Your task to perform on an android device: Open eBay Image 0: 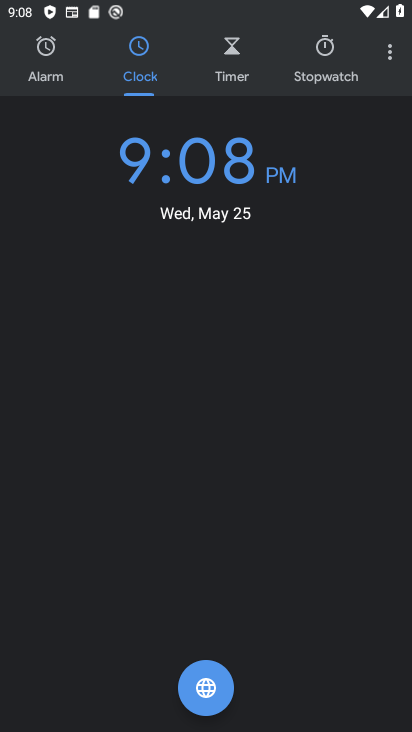
Step 0: press home button
Your task to perform on an android device: Open eBay Image 1: 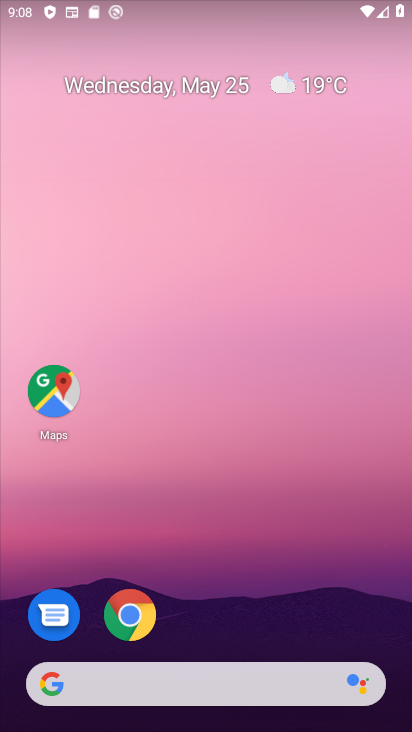
Step 1: drag from (269, 706) to (299, 122)
Your task to perform on an android device: Open eBay Image 2: 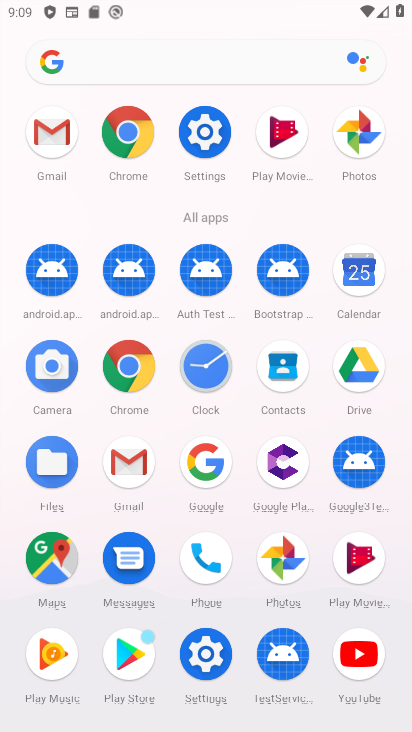
Step 2: click (136, 139)
Your task to perform on an android device: Open eBay Image 3: 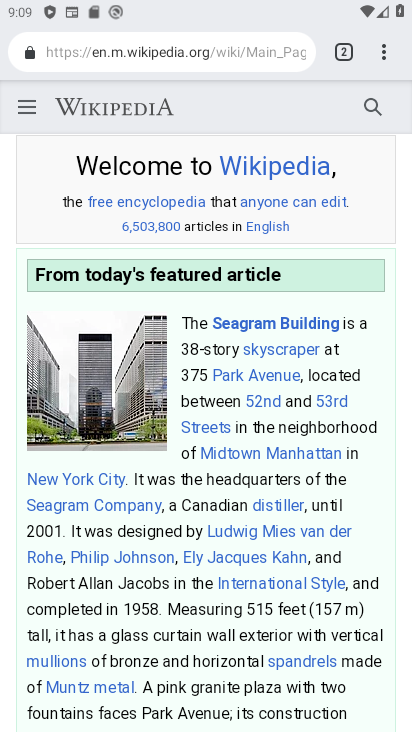
Step 3: click (172, 56)
Your task to perform on an android device: Open eBay Image 4: 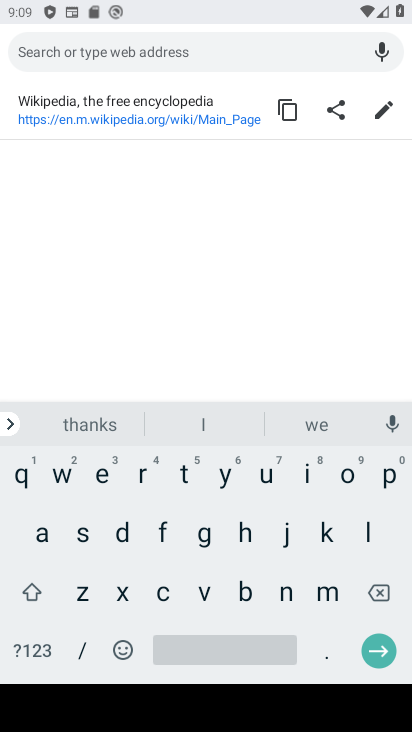
Step 4: click (99, 471)
Your task to perform on an android device: Open eBay Image 5: 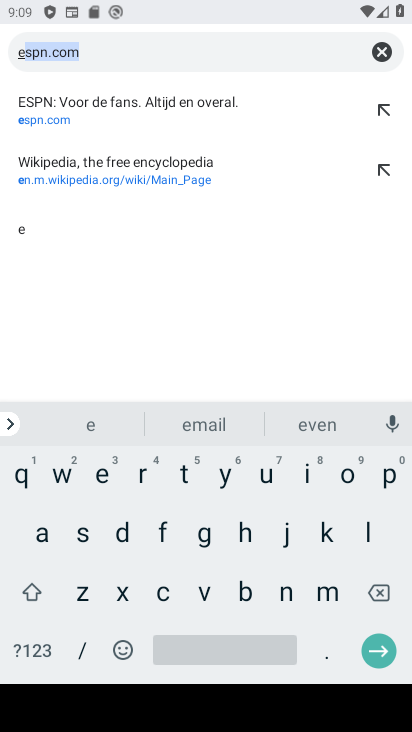
Step 5: click (240, 596)
Your task to perform on an android device: Open eBay Image 6: 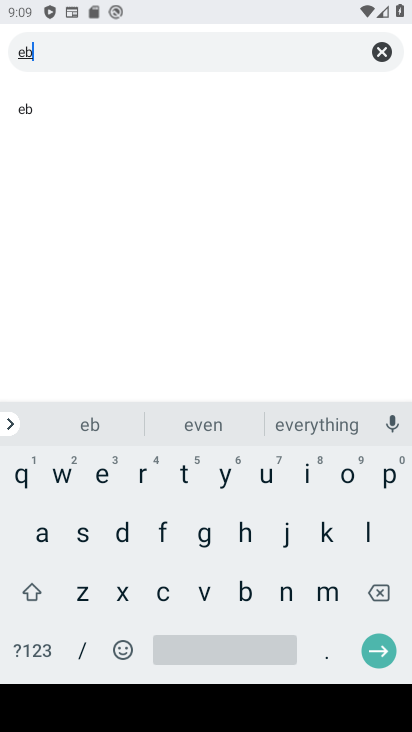
Step 6: click (32, 544)
Your task to perform on an android device: Open eBay Image 7: 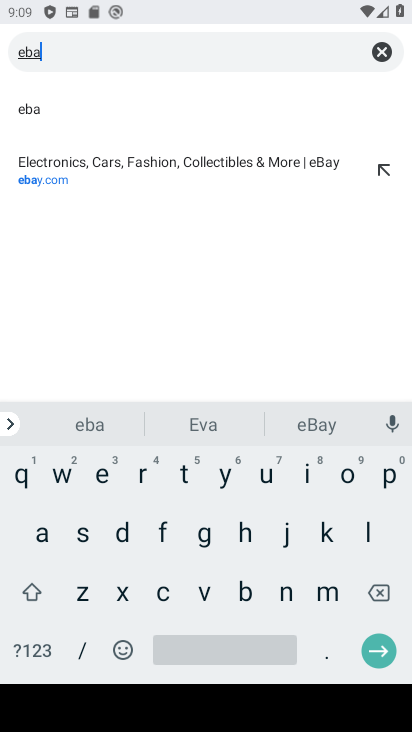
Step 7: click (223, 489)
Your task to perform on an android device: Open eBay Image 8: 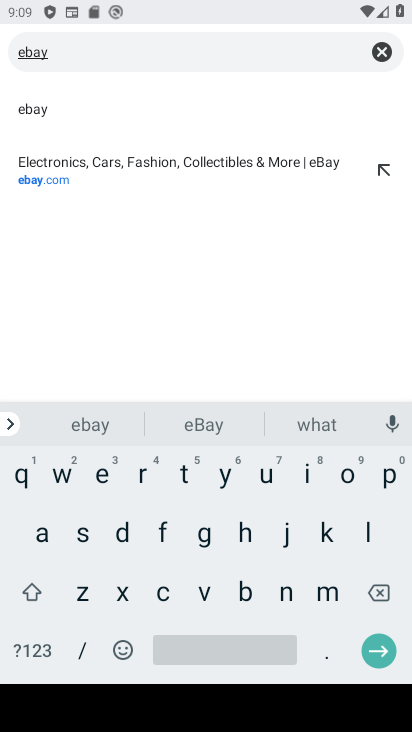
Step 8: click (105, 117)
Your task to perform on an android device: Open eBay Image 9: 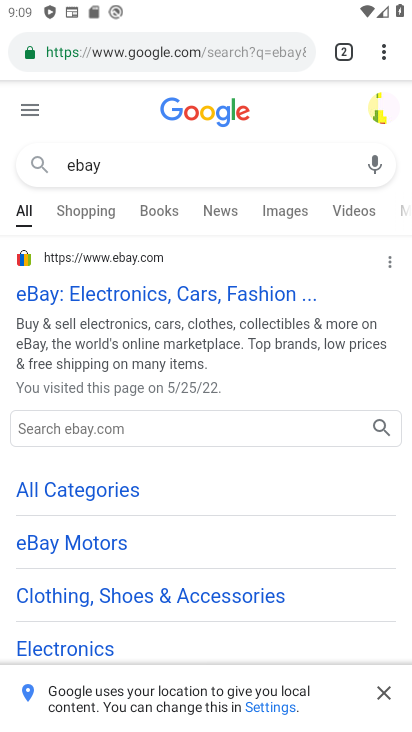
Step 9: click (100, 306)
Your task to perform on an android device: Open eBay Image 10: 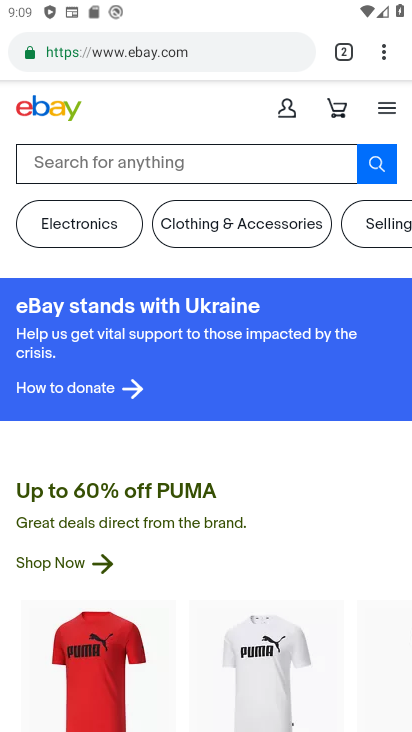
Step 10: task complete